Your task to perform on an android device: Open Reddit.com Image 0: 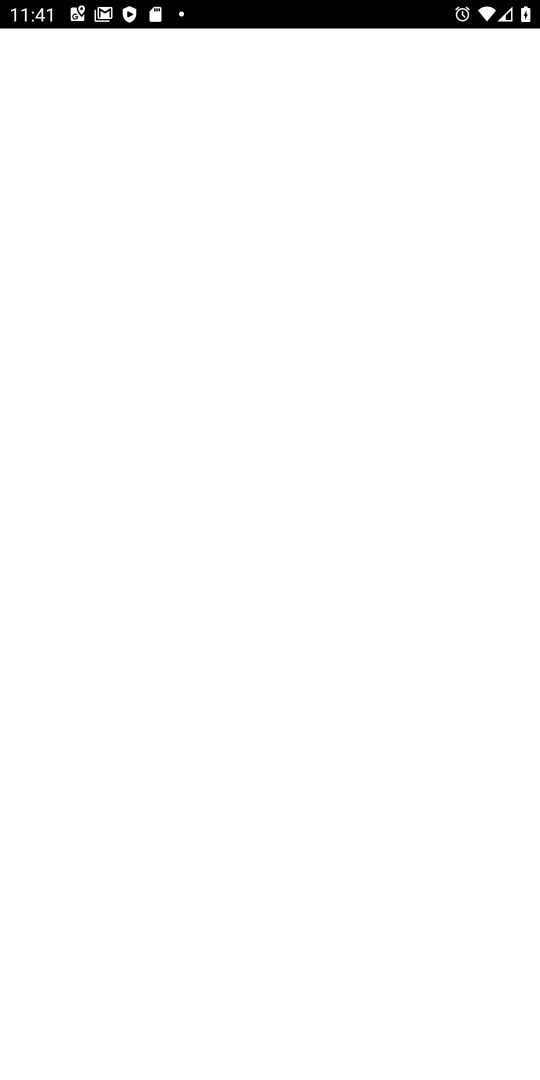
Step 0: press home button
Your task to perform on an android device: Open Reddit.com Image 1: 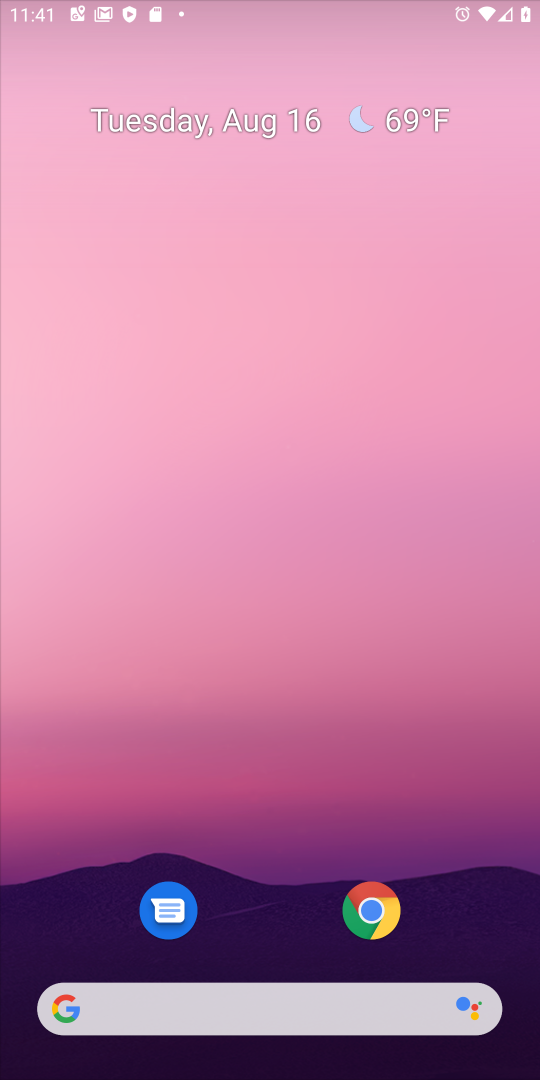
Step 1: drag from (433, 806) to (507, 62)
Your task to perform on an android device: Open Reddit.com Image 2: 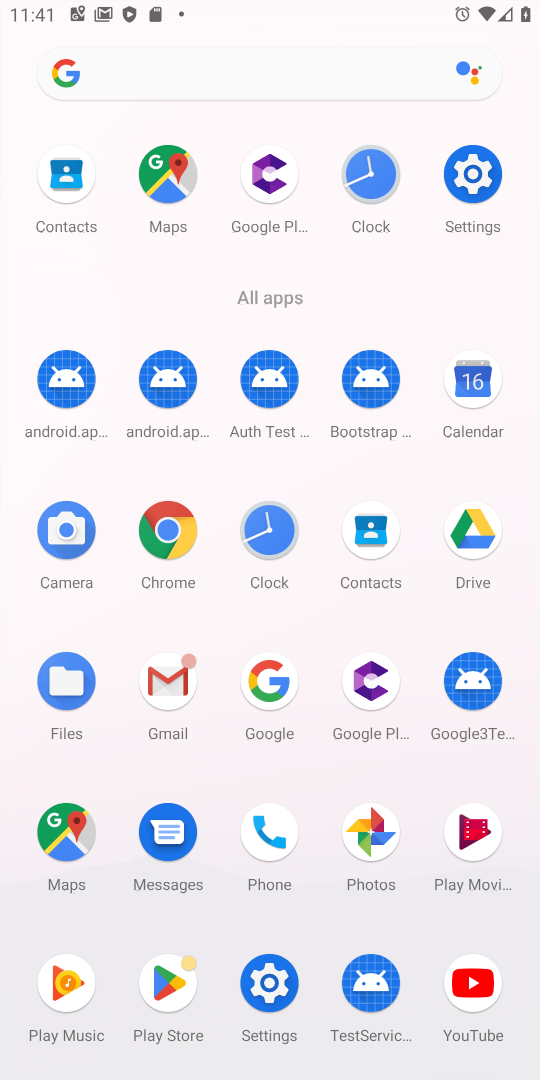
Step 2: click (177, 529)
Your task to perform on an android device: Open Reddit.com Image 3: 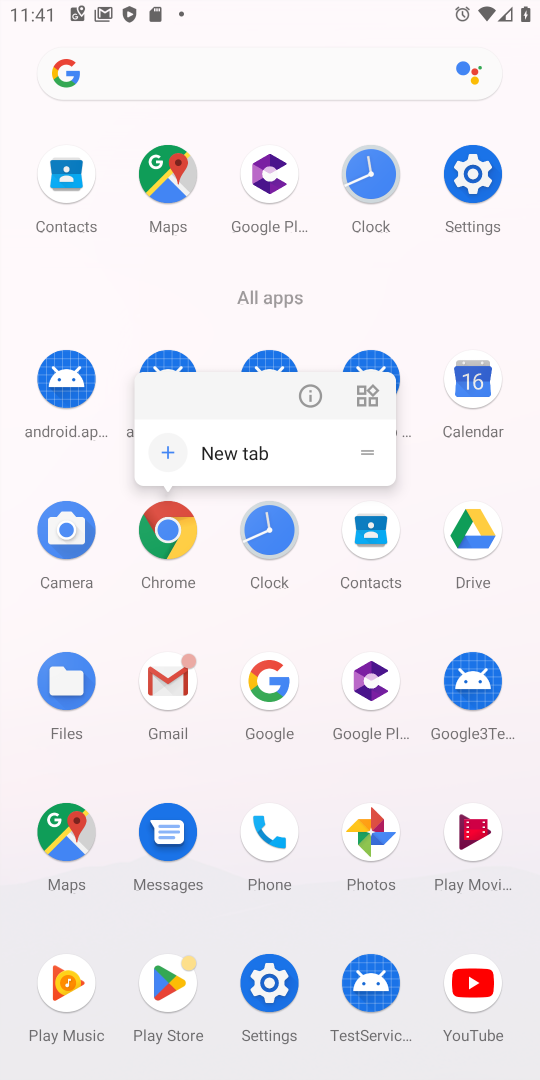
Step 3: click (176, 531)
Your task to perform on an android device: Open Reddit.com Image 4: 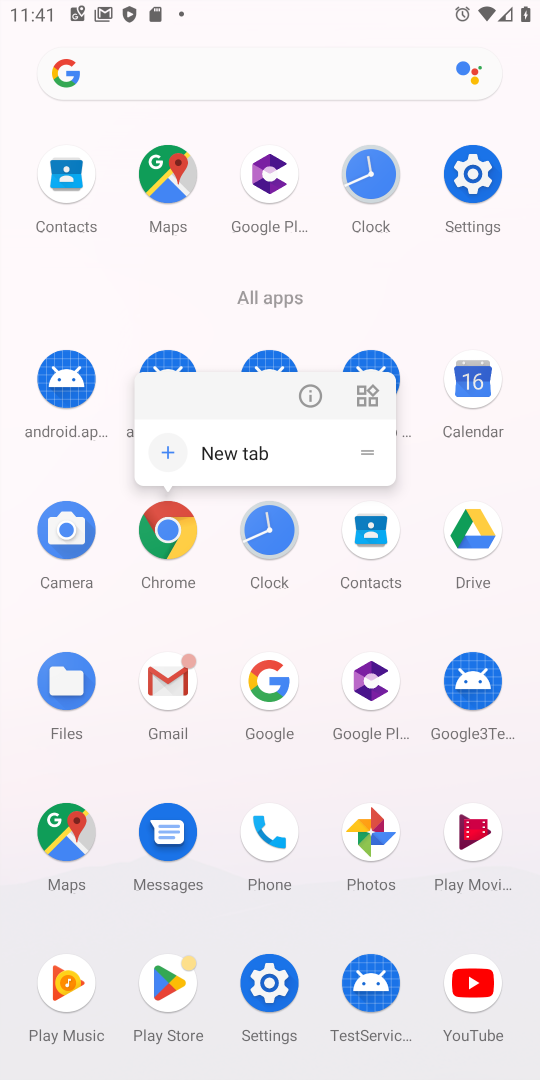
Step 4: click (154, 530)
Your task to perform on an android device: Open Reddit.com Image 5: 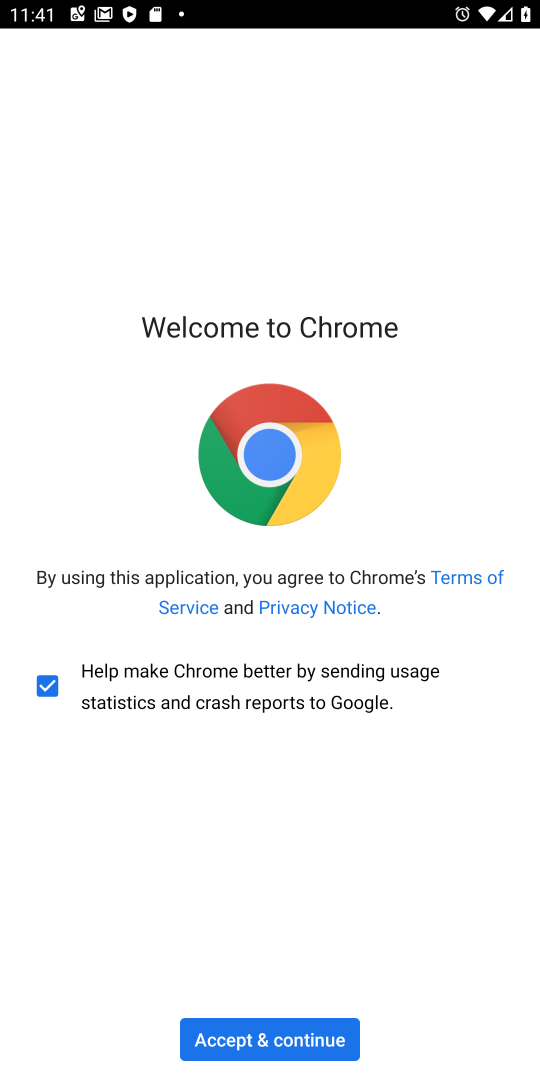
Step 5: click (318, 1030)
Your task to perform on an android device: Open Reddit.com Image 6: 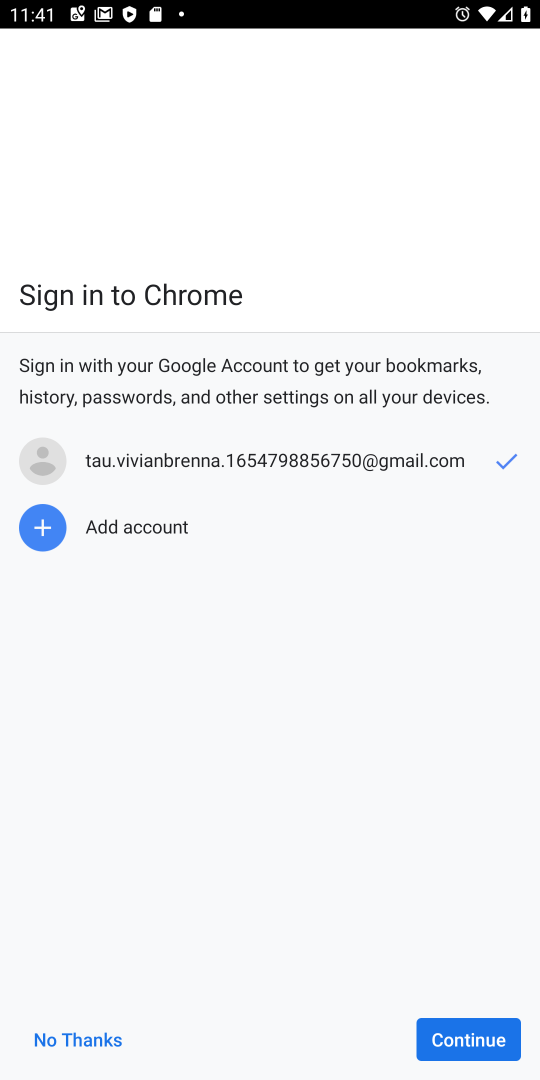
Step 6: click (475, 1053)
Your task to perform on an android device: Open Reddit.com Image 7: 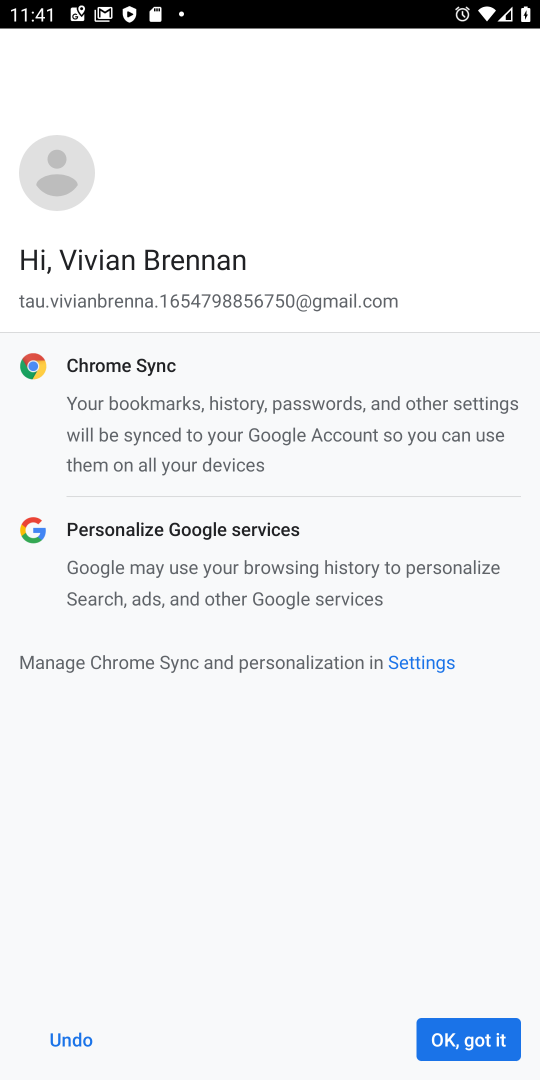
Step 7: click (475, 1053)
Your task to perform on an android device: Open Reddit.com Image 8: 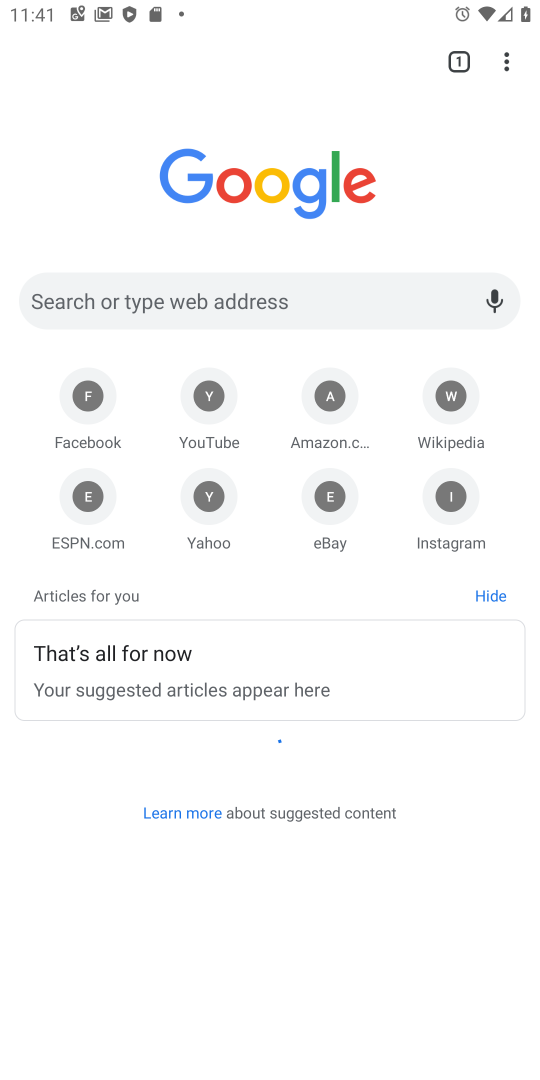
Step 8: click (313, 294)
Your task to perform on an android device: Open Reddit.com Image 9: 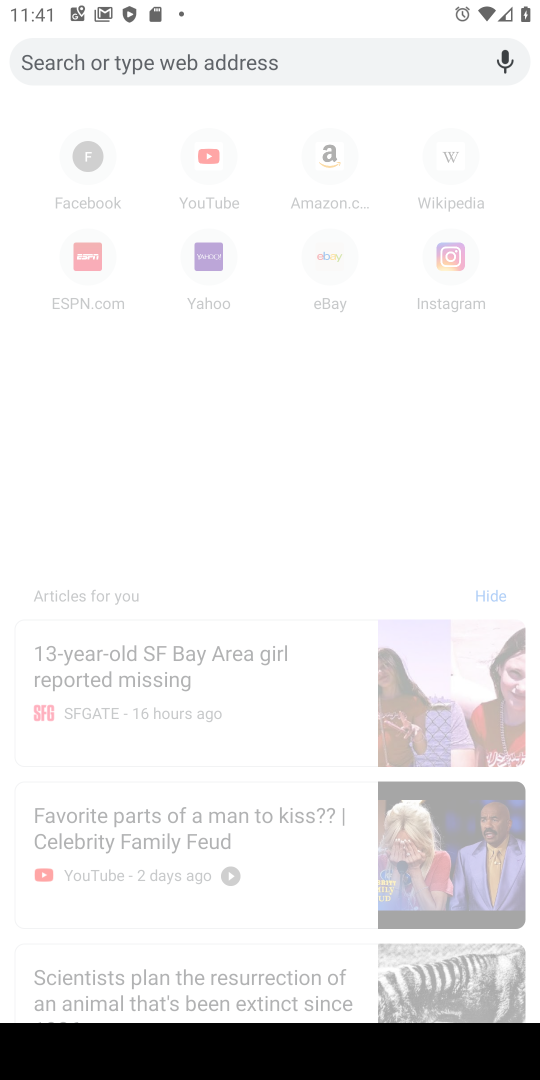
Step 9: type "reddit.com"
Your task to perform on an android device: Open Reddit.com Image 10: 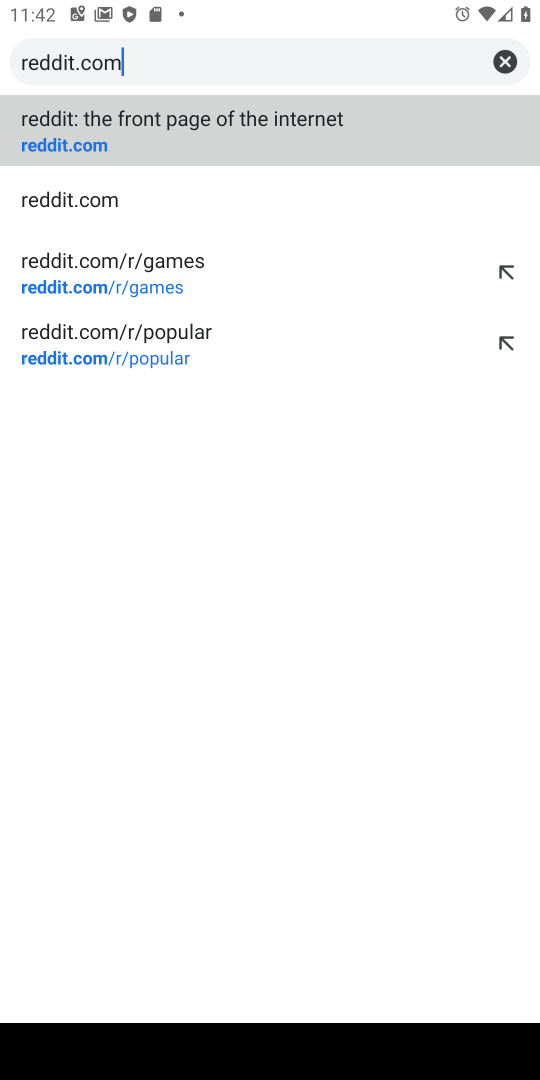
Step 10: click (56, 144)
Your task to perform on an android device: Open Reddit.com Image 11: 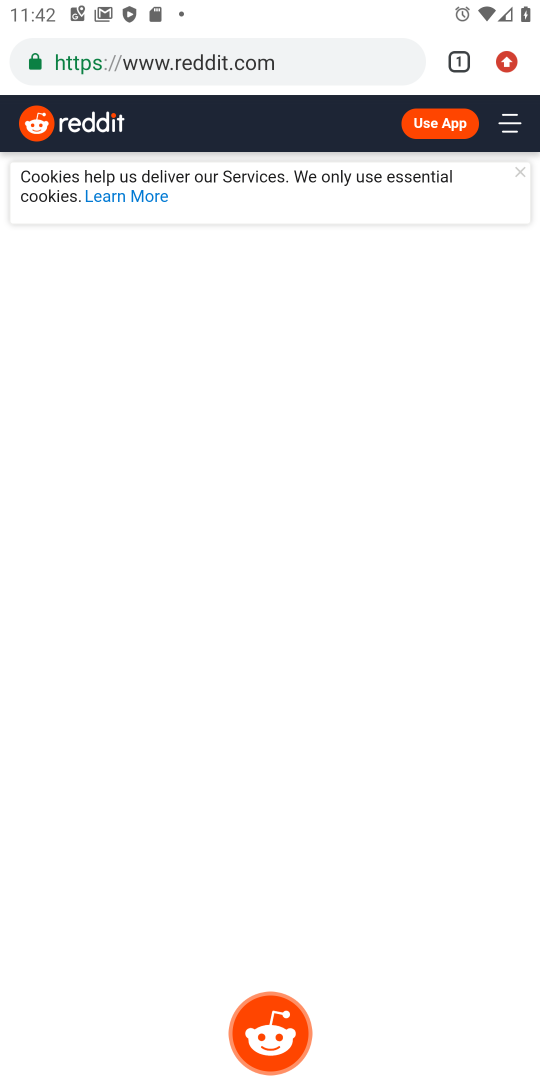
Step 11: task complete